Your task to perform on an android device: Open Chrome and go to settings Image 0: 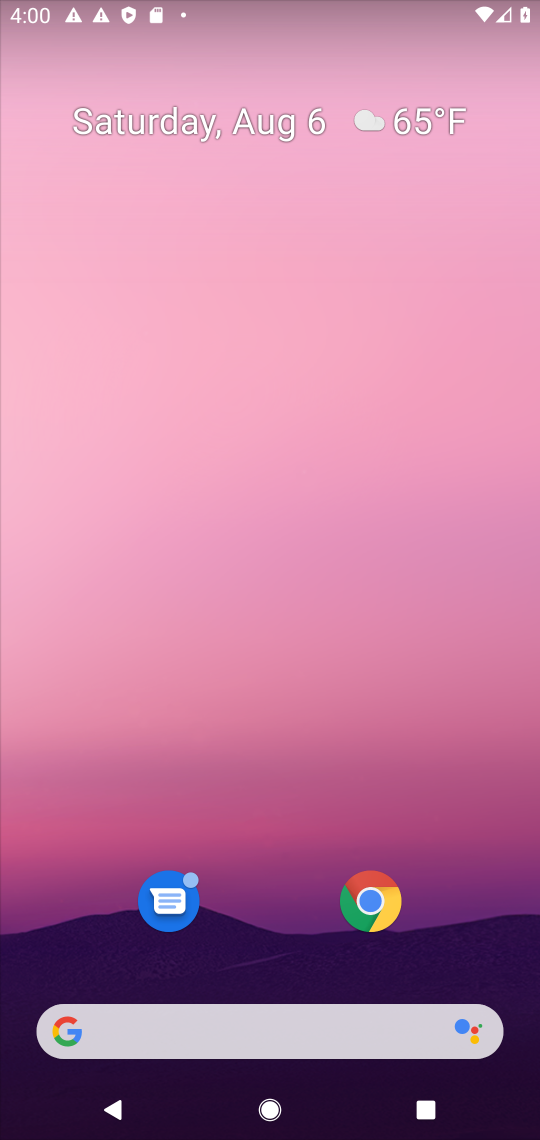
Step 0: press home button
Your task to perform on an android device: Open Chrome and go to settings Image 1: 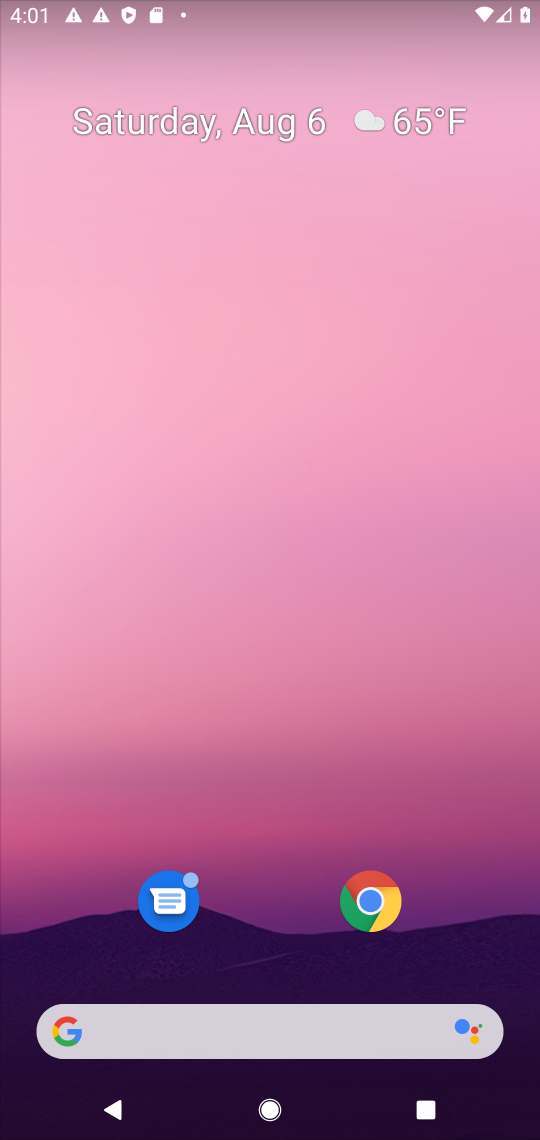
Step 1: click (384, 905)
Your task to perform on an android device: Open Chrome and go to settings Image 2: 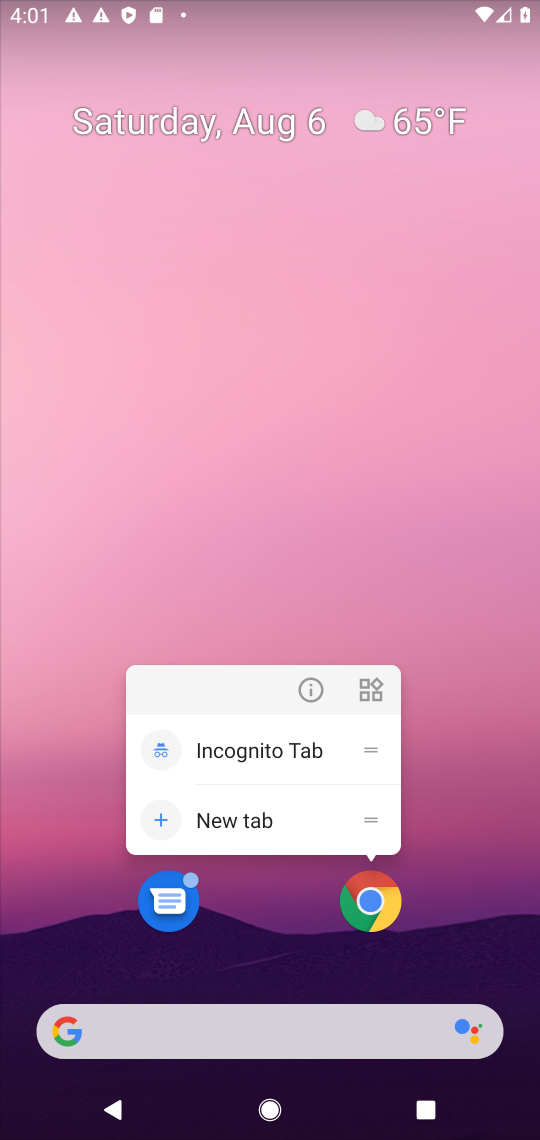
Step 2: click (399, 912)
Your task to perform on an android device: Open Chrome and go to settings Image 3: 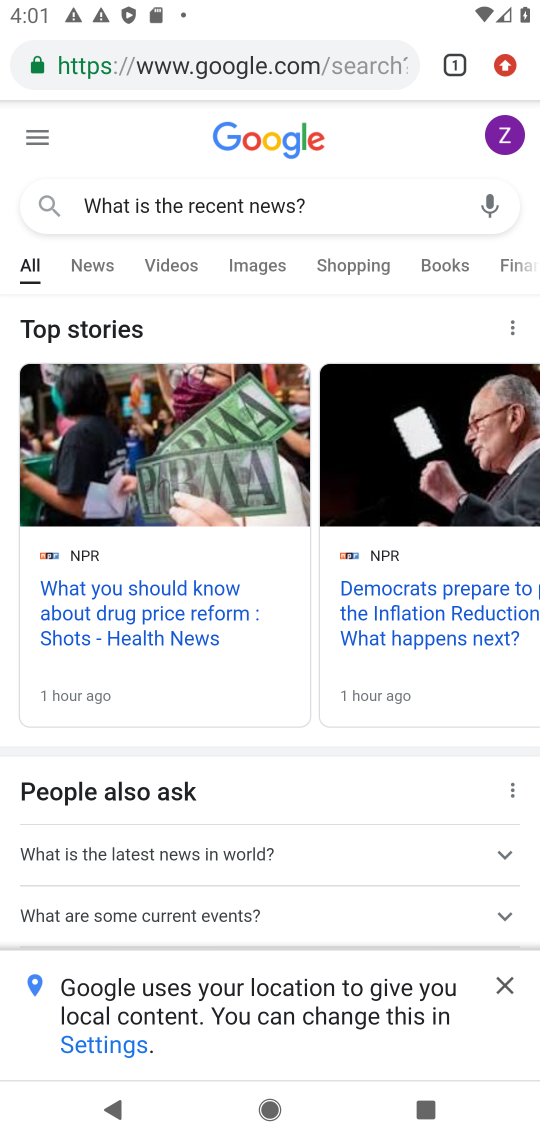
Step 3: task complete